Your task to perform on an android device: What's the weather today? Image 0: 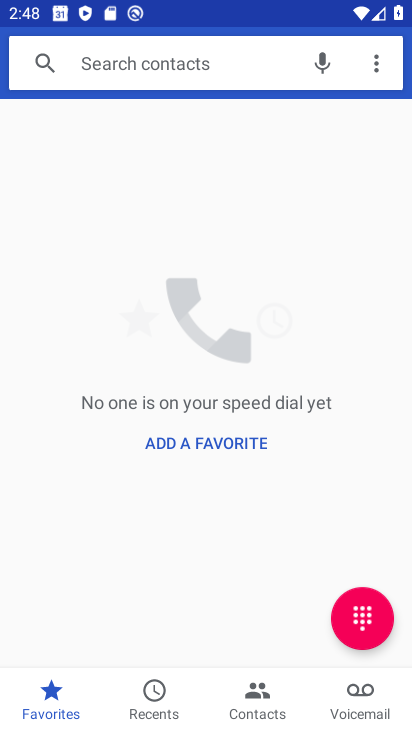
Step 0: press back button
Your task to perform on an android device: What's the weather today? Image 1: 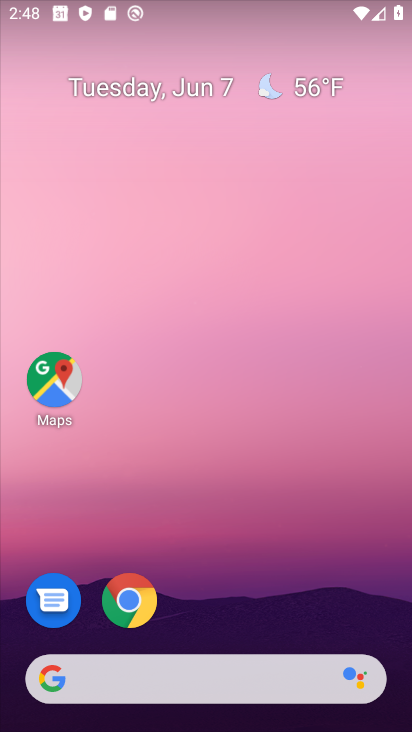
Step 1: drag from (402, 627) to (389, 206)
Your task to perform on an android device: What's the weather today? Image 2: 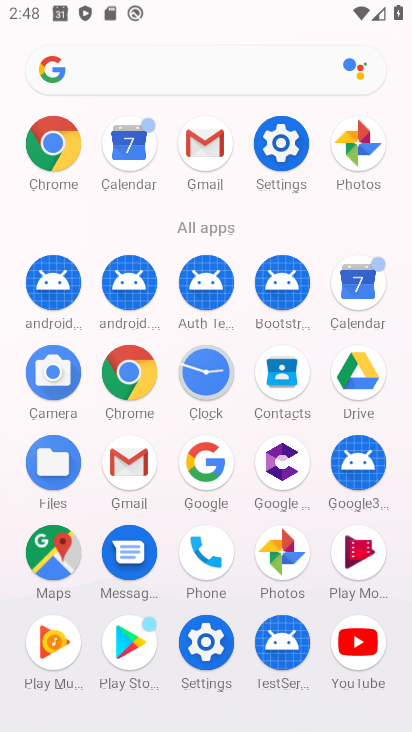
Step 2: click (201, 453)
Your task to perform on an android device: What's the weather today? Image 3: 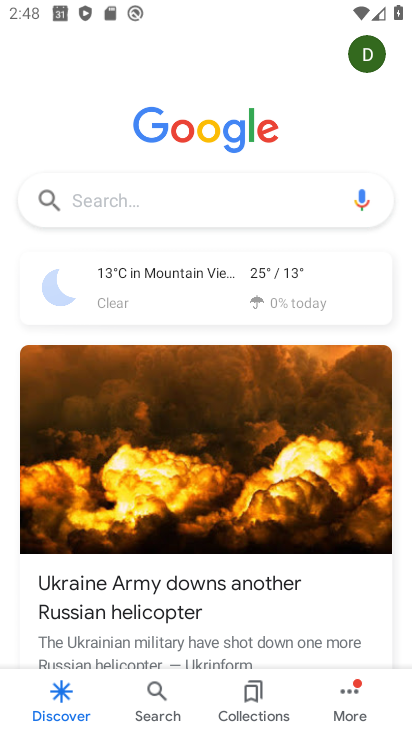
Step 3: click (280, 266)
Your task to perform on an android device: What's the weather today? Image 4: 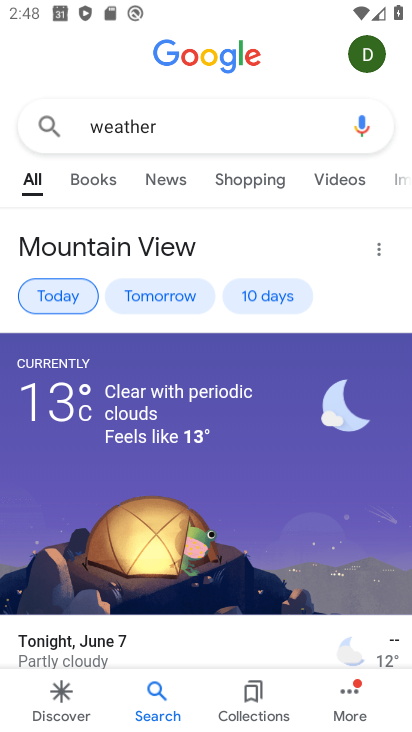
Step 4: task complete